Your task to perform on an android device: check battery use Image 0: 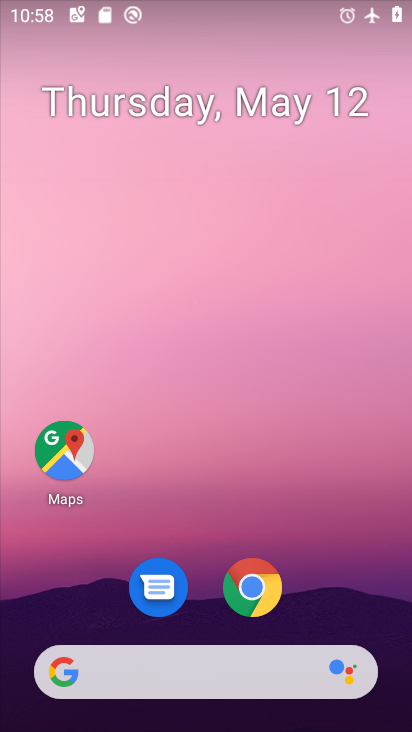
Step 0: drag from (404, 651) to (323, 139)
Your task to perform on an android device: check battery use Image 1: 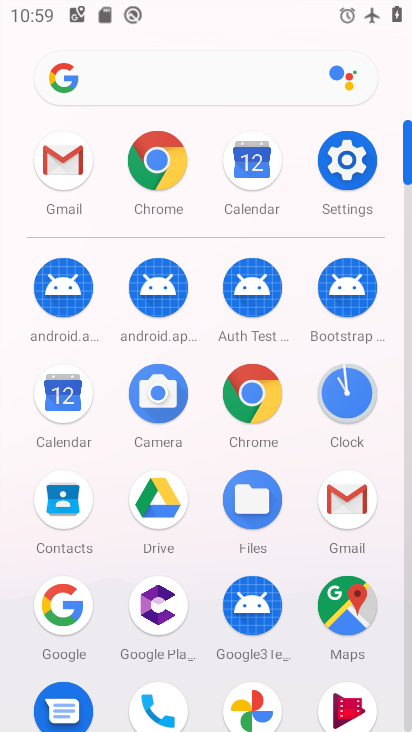
Step 1: click (368, 157)
Your task to perform on an android device: check battery use Image 2: 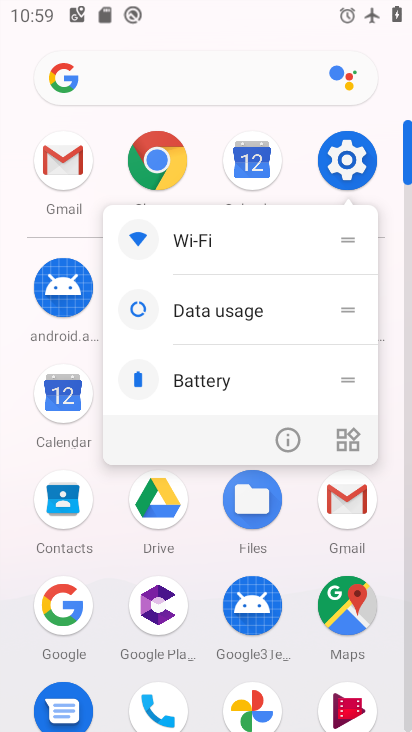
Step 2: click (368, 157)
Your task to perform on an android device: check battery use Image 3: 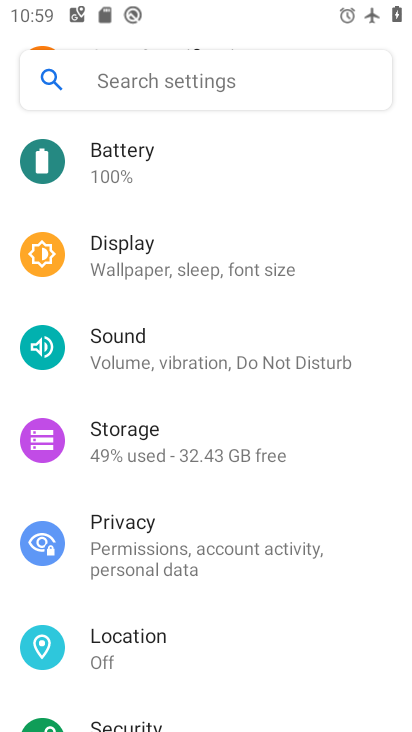
Step 3: click (172, 155)
Your task to perform on an android device: check battery use Image 4: 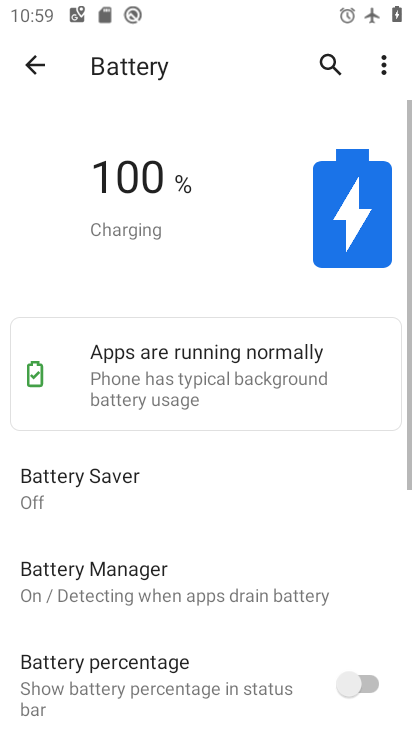
Step 4: task complete